Your task to perform on an android device: Search for pizza restaurants on Maps Image 0: 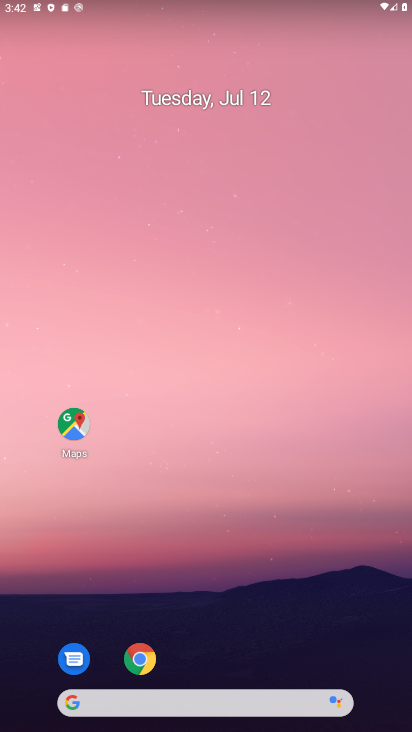
Step 0: click (223, 728)
Your task to perform on an android device: Search for pizza restaurants on Maps Image 1: 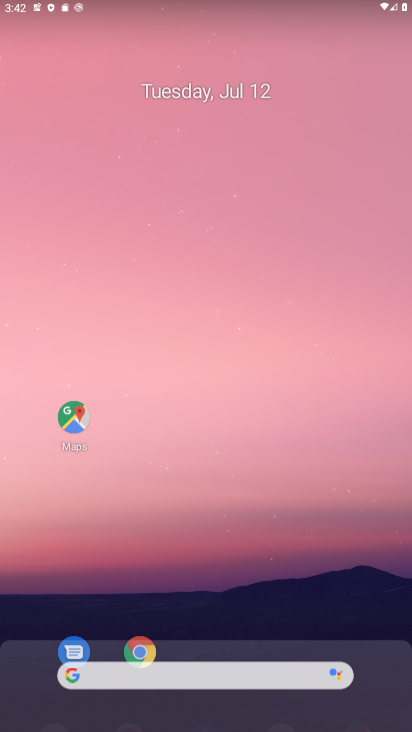
Step 1: drag from (215, 140) to (215, 93)
Your task to perform on an android device: Search for pizza restaurants on Maps Image 2: 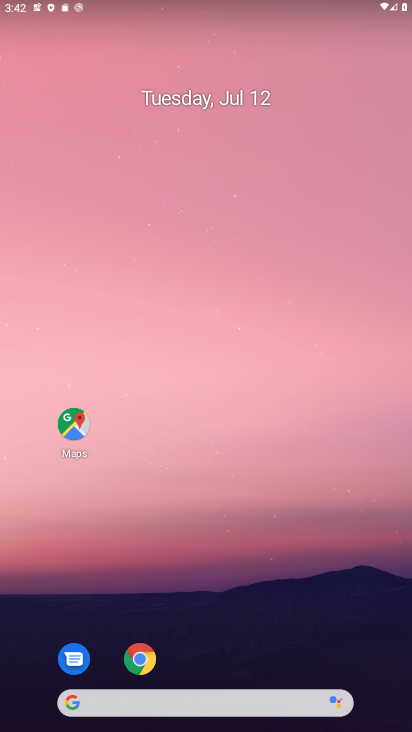
Step 2: drag from (231, 728) to (213, 221)
Your task to perform on an android device: Search for pizza restaurants on Maps Image 3: 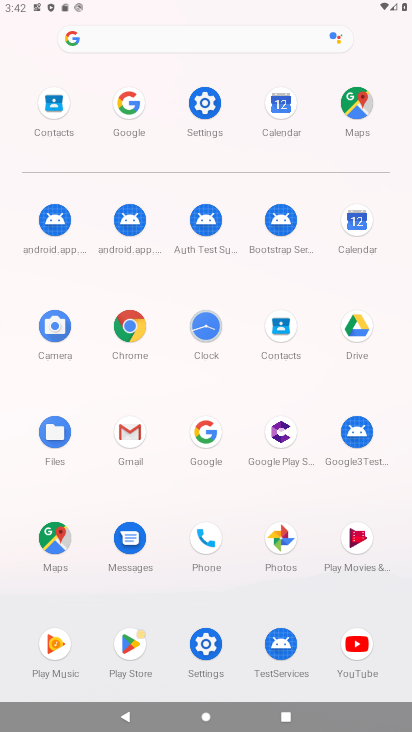
Step 3: click (363, 107)
Your task to perform on an android device: Search for pizza restaurants on Maps Image 4: 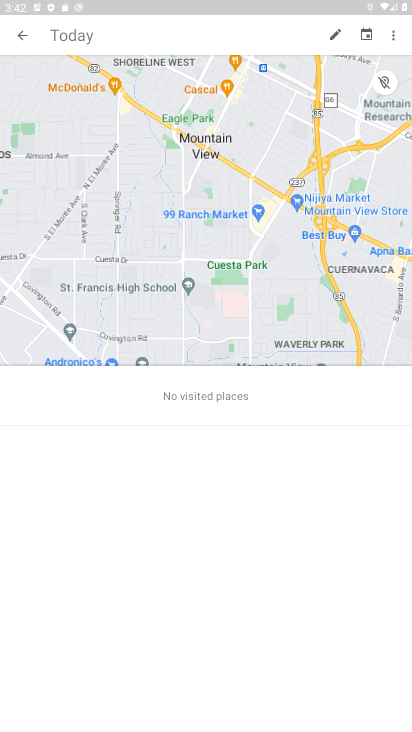
Step 4: click (20, 29)
Your task to perform on an android device: Search for pizza restaurants on Maps Image 5: 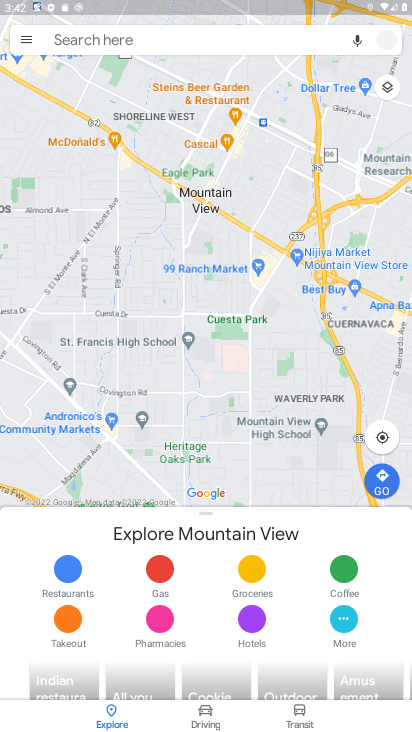
Step 5: click (86, 37)
Your task to perform on an android device: Search for pizza restaurants on Maps Image 6: 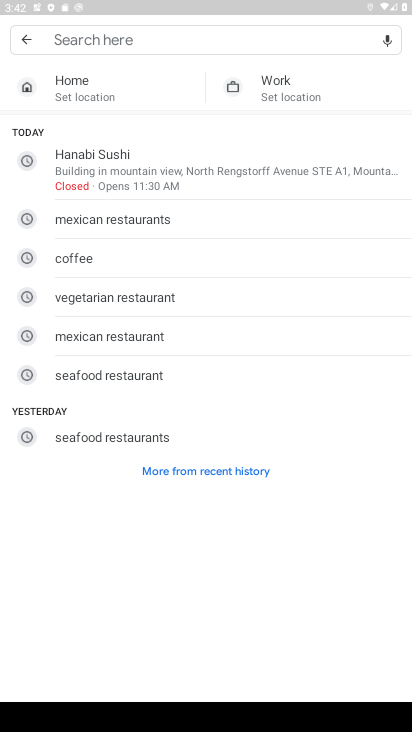
Step 6: type "Pizza restaurants"
Your task to perform on an android device: Search for pizza restaurants on Maps Image 7: 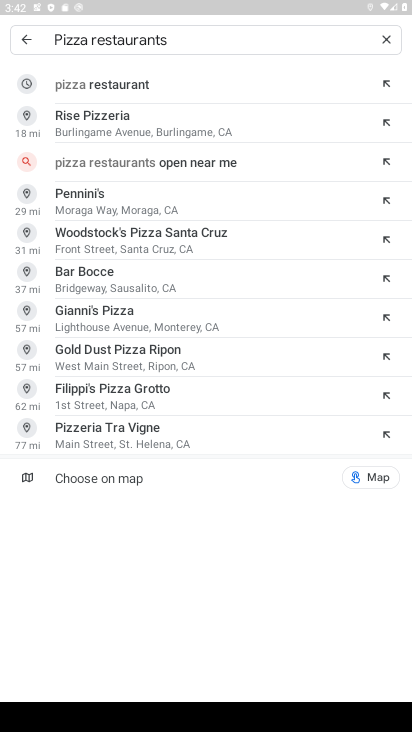
Step 7: click (93, 74)
Your task to perform on an android device: Search for pizza restaurants on Maps Image 8: 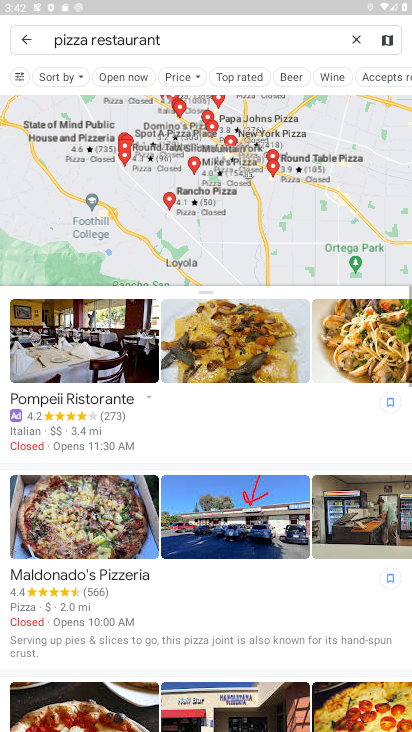
Step 8: task complete